Your task to perform on an android device: Go to location settings Image 0: 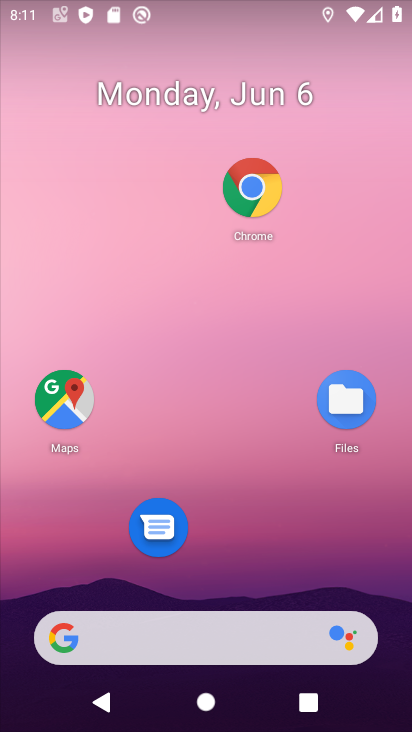
Step 0: drag from (217, 384) to (221, 79)
Your task to perform on an android device: Go to location settings Image 1: 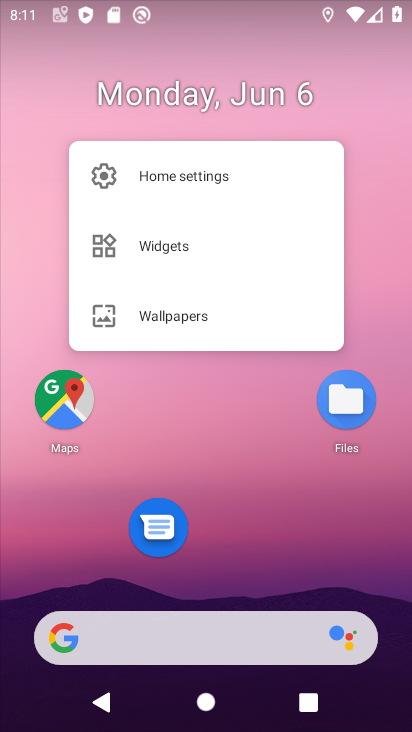
Step 1: click (253, 483)
Your task to perform on an android device: Go to location settings Image 2: 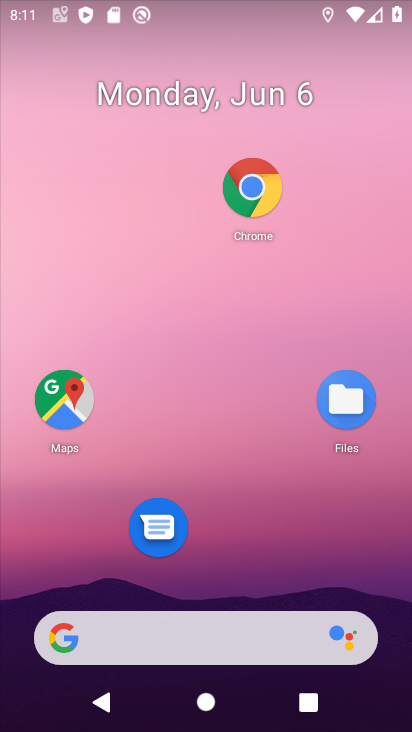
Step 2: drag from (219, 378) to (209, 183)
Your task to perform on an android device: Go to location settings Image 3: 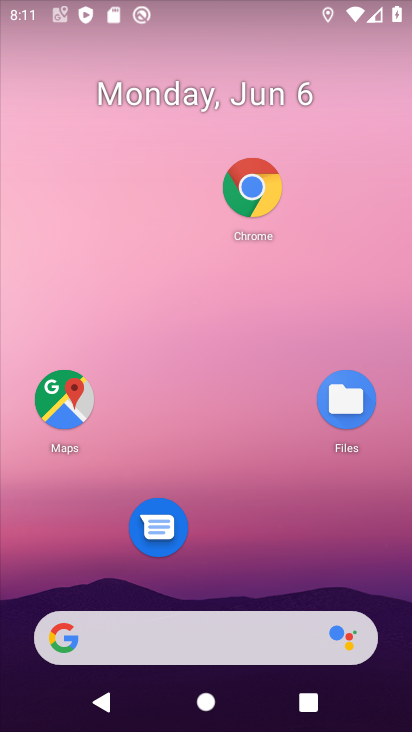
Step 3: drag from (277, 590) to (299, 181)
Your task to perform on an android device: Go to location settings Image 4: 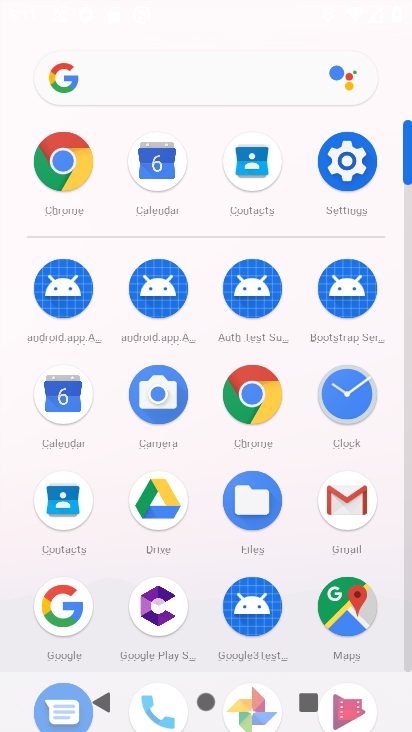
Step 4: click (349, 163)
Your task to perform on an android device: Go to location settings Image 5: 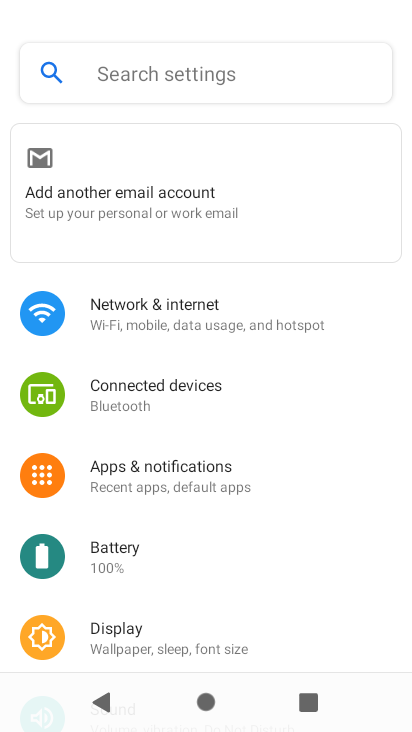
Step 5: drag from (252, 580) to (242, 165)
Your task to perform on an android device: Go to location settings Image 6: 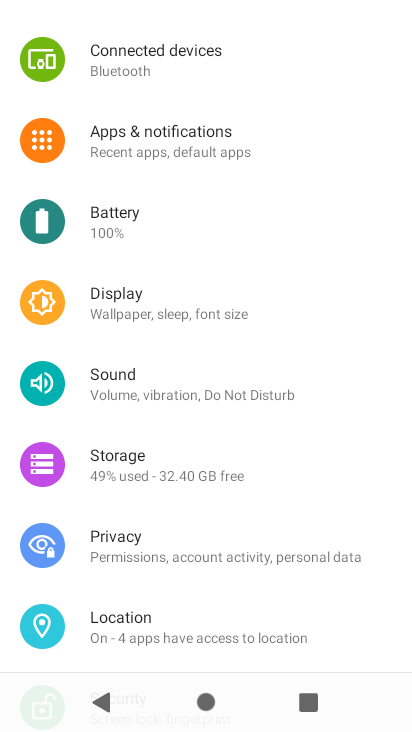
Step 6: click (174, 618)
Your task to perform on an android device: Go to location settings Image 7: 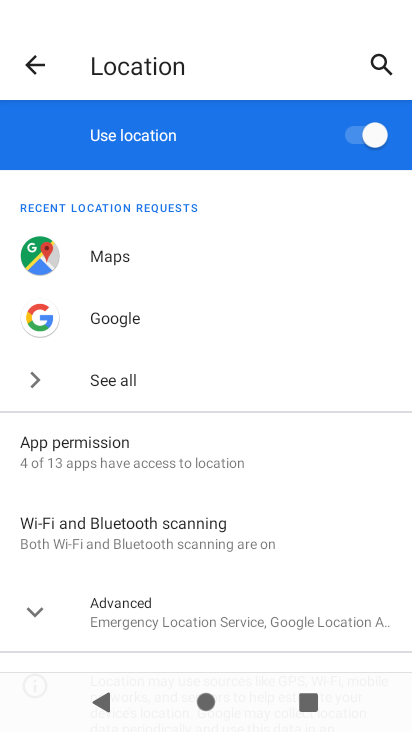
Step 7: task complete